Your task to perform on an android device: turn on improve location accuracy Image 0: 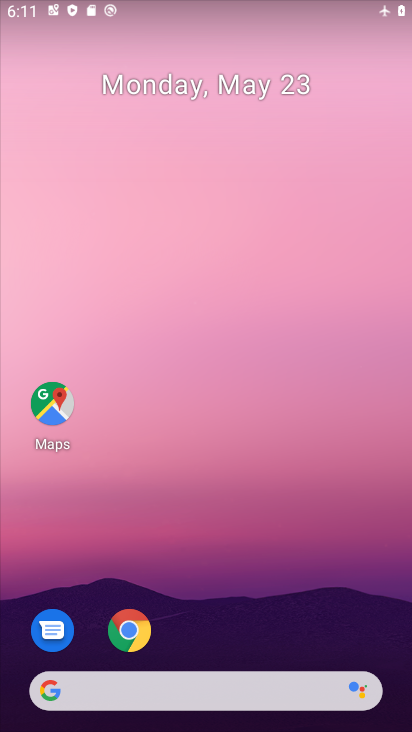
Step 0: drag from (281, 572) to (158, 46)
Your task to perform on an android device: turn on improve location accuracy Image 1: 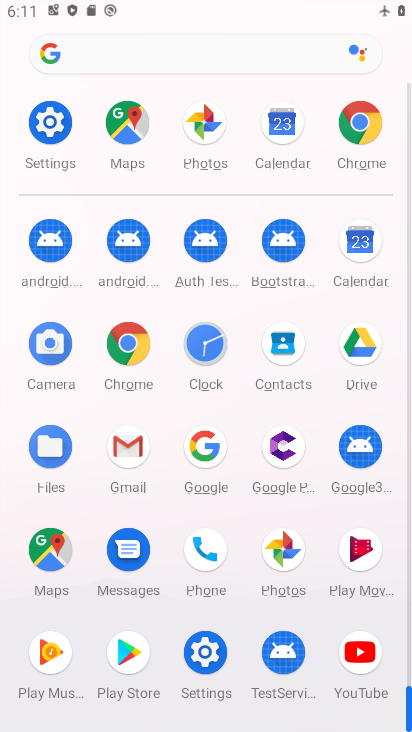
Step 1: drag from (4, 533) to (10, 168)
Your task to perform on an android device: turn on improve location accuracy Image 2: 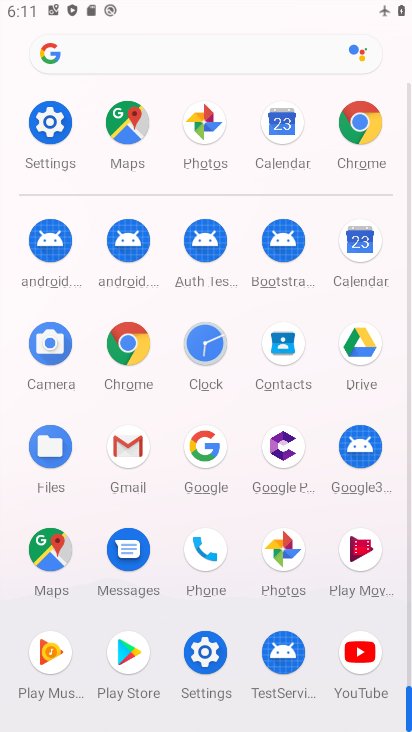
Step 2: drag from (20, 561) to (10, 157)
Your task to perform on an android device: turn on improve location accuracy Image 3: 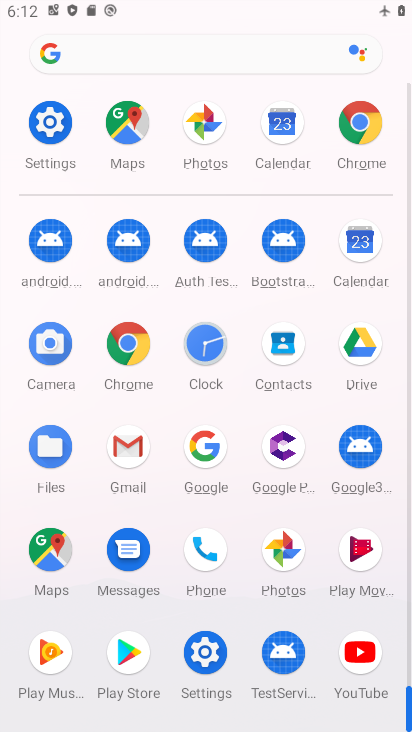
Step 3: click (203, 650)
Your task to perform on an android device: turn on improve location accuracy Image 4: 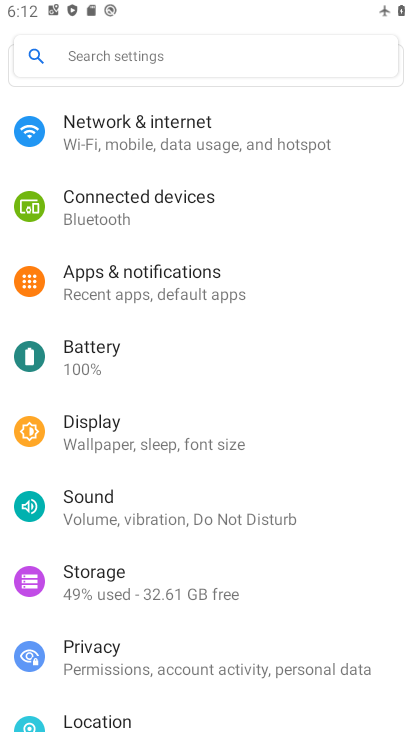
Step 4: drag from (306, 517) to (308, 153)
Your task to perform on an android device: turn on improve location accuracy Image 5: 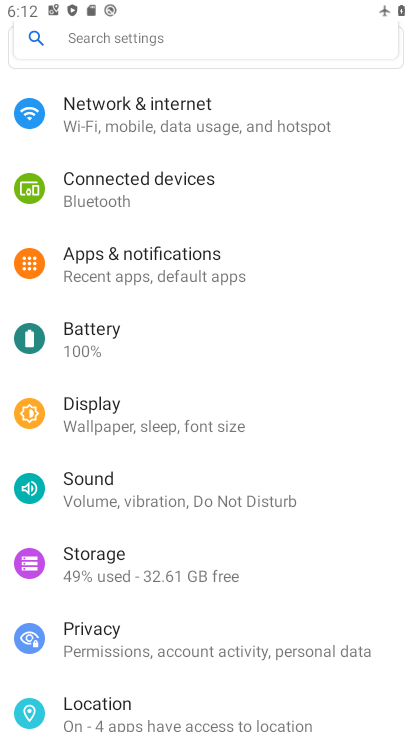
Step 5: drag from (228, 197) to (228, 582)
Your task to perform on an android device: turn on improve location accuracy Image 6: 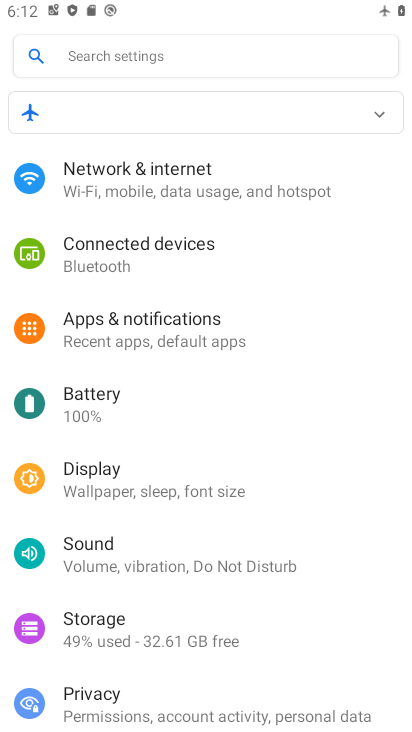
Step 6: drag from (241, 545) to (279, 130)
Your task to perform on an android device: turn on improve location accuracy Image 7: 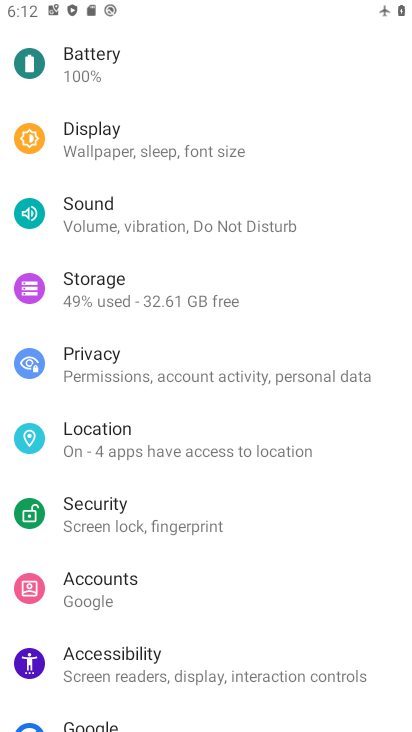
Step 7: click (145, 440)
Your task to perform on an android device: turn on improve location accuracy Image 8: 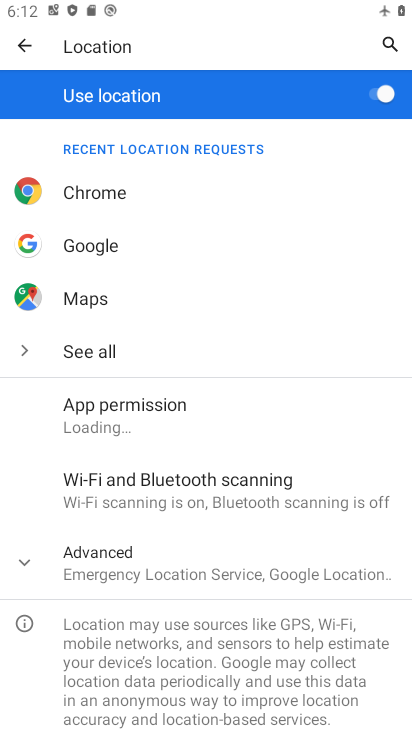
Step 8: click (20, 568)
Your task to perform on an android device: turn on improve location accuracy Image 9: 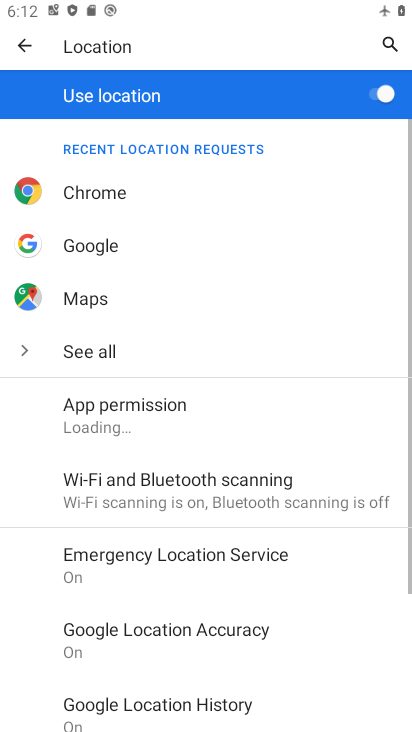
Step 9: drag from (280, 592) to (306, 232)
Your task to perform on an android device: turn on improve location accuracy Image 10: 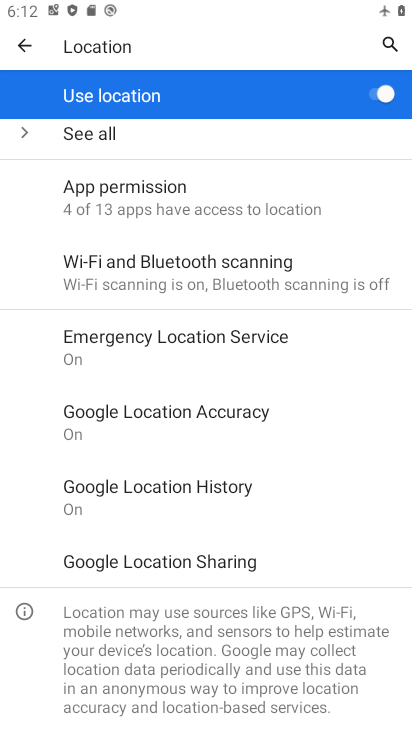
Step 10: click (236, 416)
Your task to perform on an android device: turn on improve location accuracy Image 11: 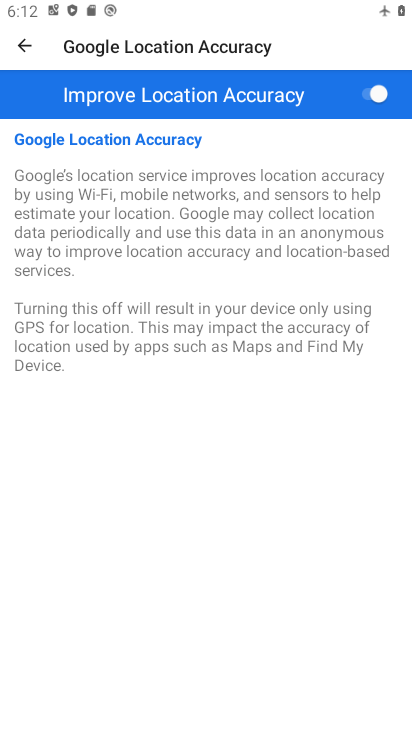
Step 11: task complete